Your task to perform on an android device: toggle location history Image 0: 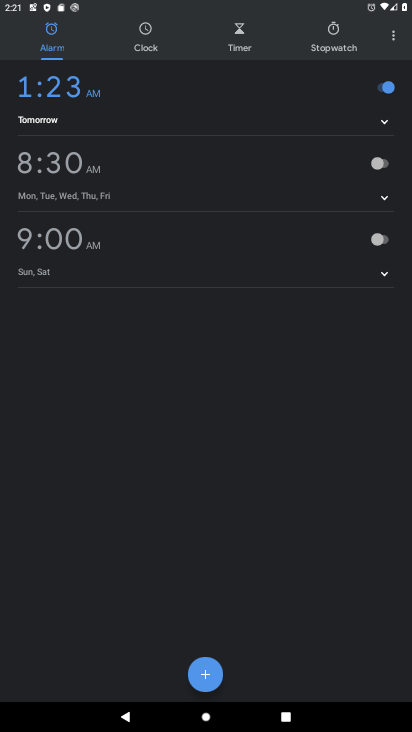
Step 0: press home button
Your task to perform on an android device: toggle location history Image 1: 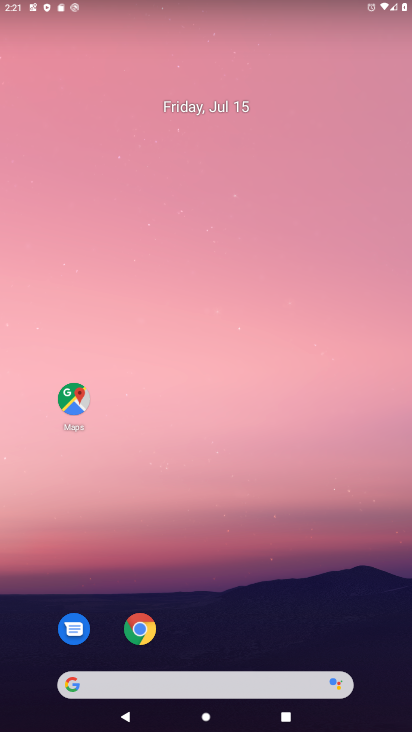
Step 1: drag from (261, 608) to (266, 174)
Your task to perform on an android device: toggle location history Image 2: 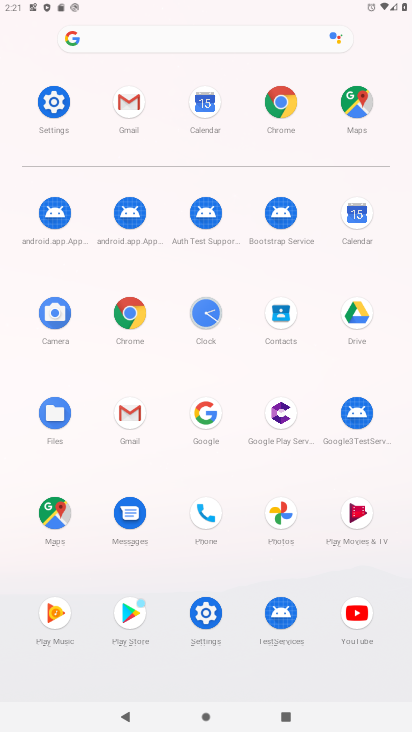
Step 2: click (53, 92)
Your task to perform on an android device: toggle location history Image 3: 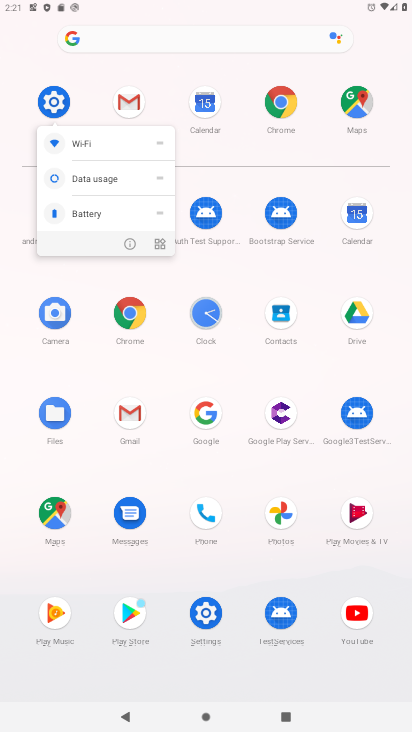
Step 3: click (54, 95)
Your task to perform on an android device: toggle location history Image 4: 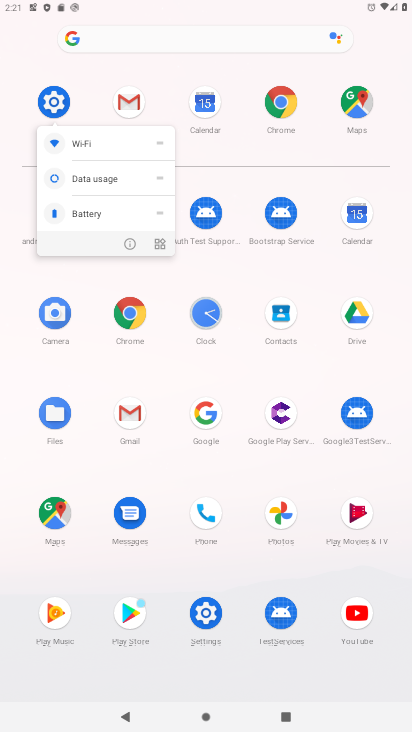
Step 4: click (53, 95)
Your task to perform on an android device: toggle location history Image 5: 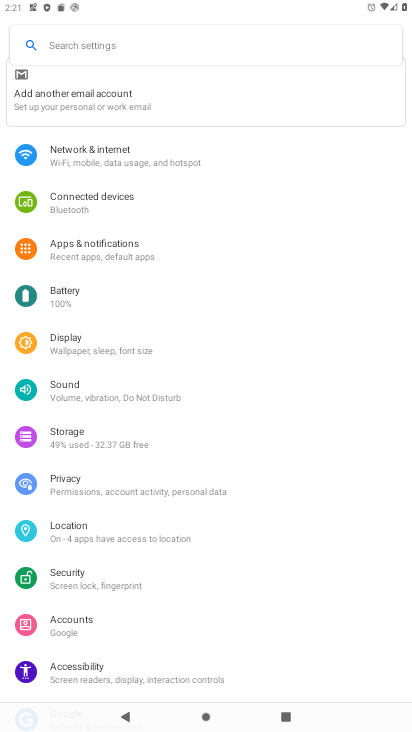
Step 5: click (94, 523)
Your task to perform on an android device: toggle location history Image 6: 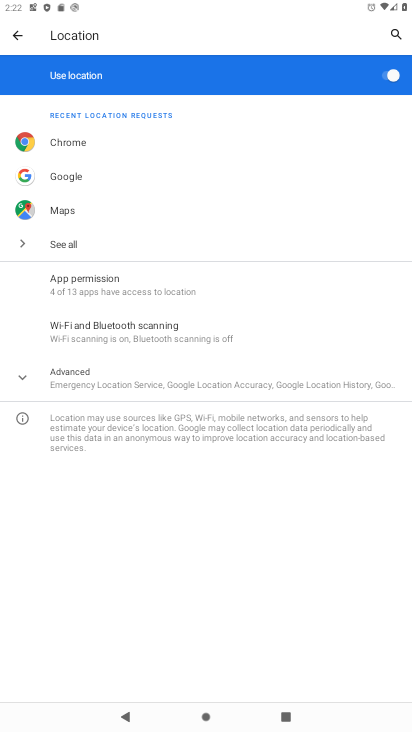
Step 6: click (268, 382)
Your task to perform on an android device: toggle location history Image 7: 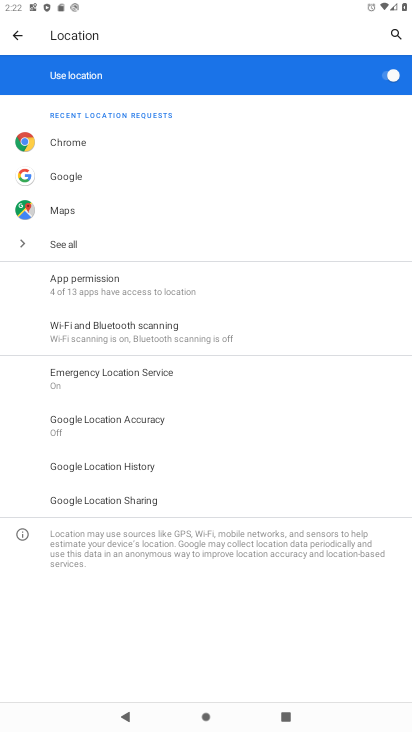
Step 7: click (130, 465)
Your task to perform on an android device: toggle location history Image 8: 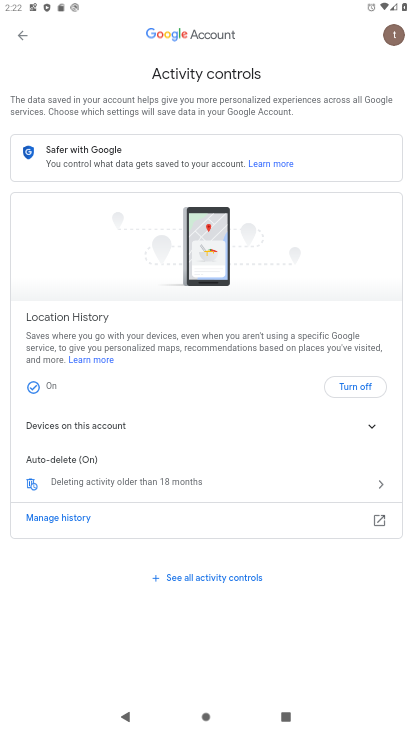
Step 8: click (371, 387)
Your task to perform on an android device: toggle location history Image 9: 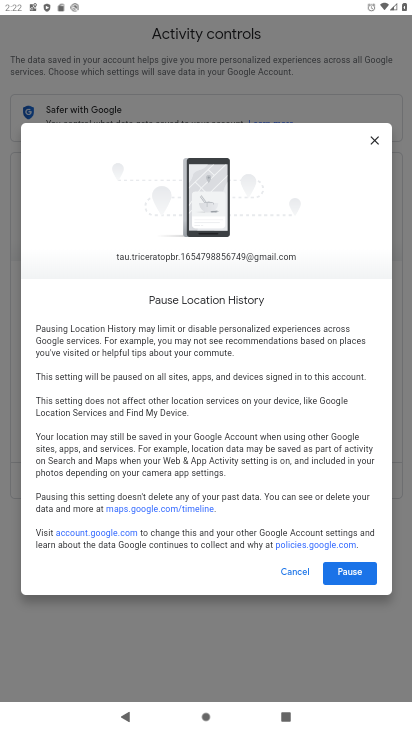
Step 9: click (365, 581)
Your task to perform on an android device: toggle location history Image 10: 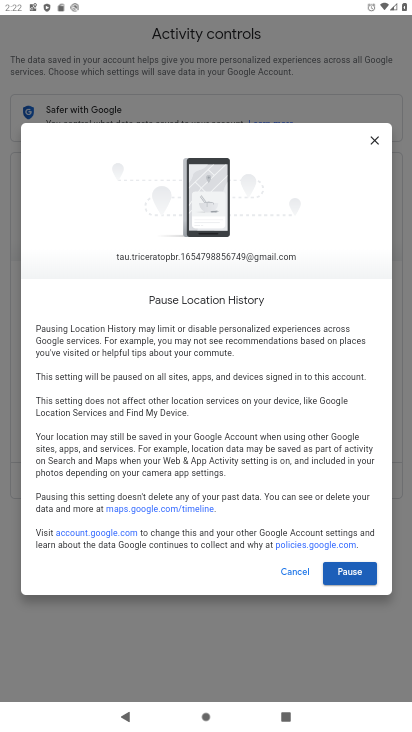
Step 10: click (365, 573)
Your task to perform on an android device: toggle location history Image 11: 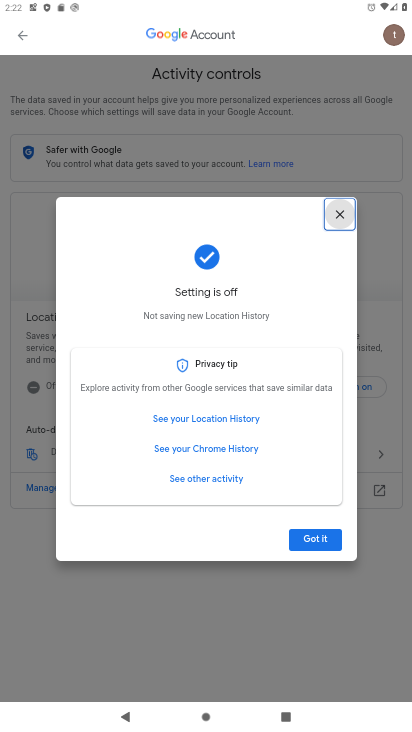
Step 11: task complete